Your task to perform on an android device: Open the web browser Image 0: 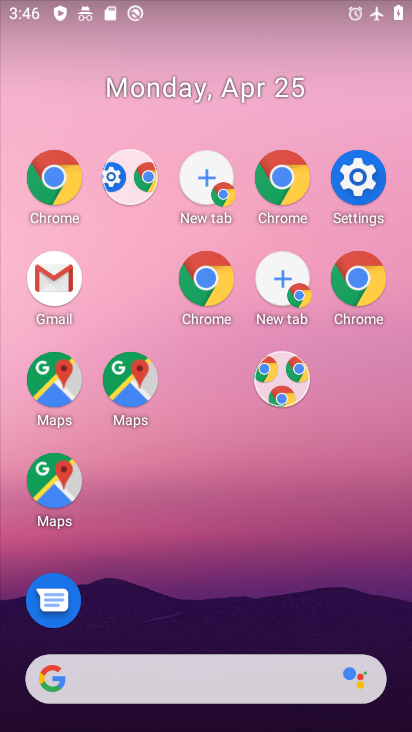
Step 0: drag from (291, 455) to (203, 56)
Your task to perform on an android device: Open the web browser Image 1: 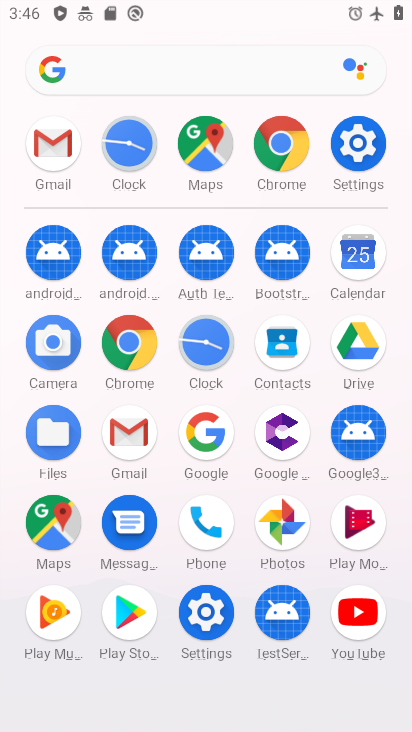
Step 1: click (360, 151)
Your task to perform on an android device: Open the web browser Image 2: 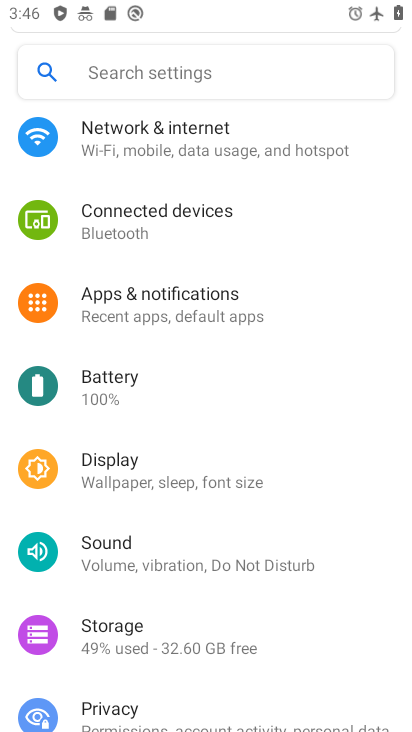
Step 2: drag from (158, 283) to (196, 621)
Your task to perform on an android device: Open the web browser Image 3: 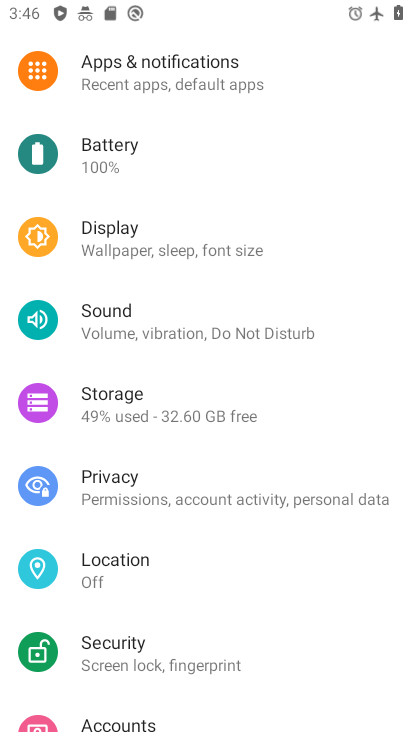
Step 3: drag from (91, 136) to (181, 635)
Your task to perform on an android device: Open the web browser Image 4: 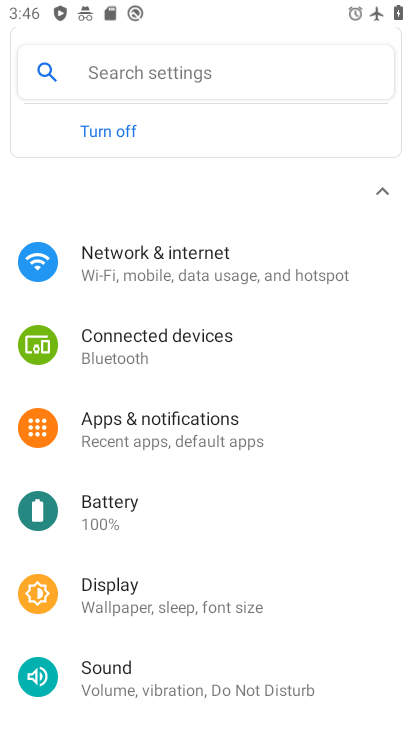
Step 4: drag from (118, 120) to (195, 608)
Your task to perform on an android device: Open the web browser Image 5: 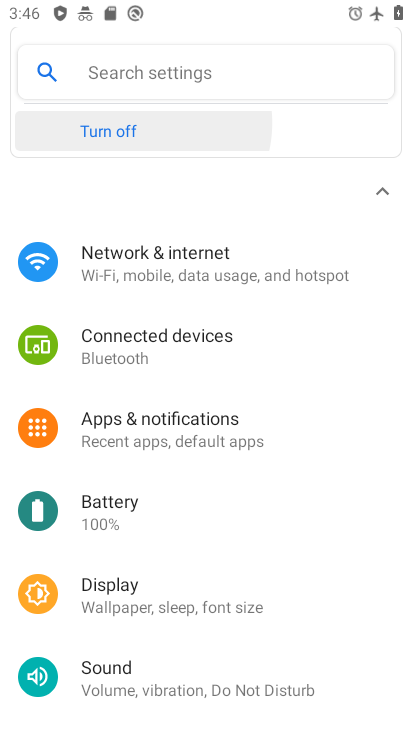
Step 5: drag from (109, 142) to (164, 728)
Your task to perform on an android device: Open the web browser Image 6: 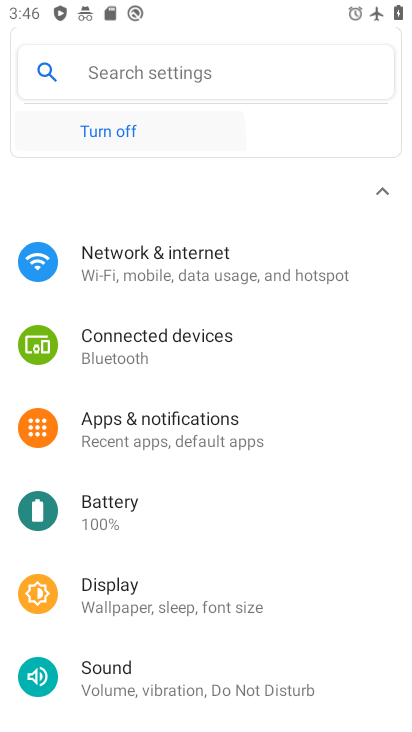
Step 6: drag from (148, 276) to (161, 560)
Your task to perform on an android device: Open the web browser Image 7: 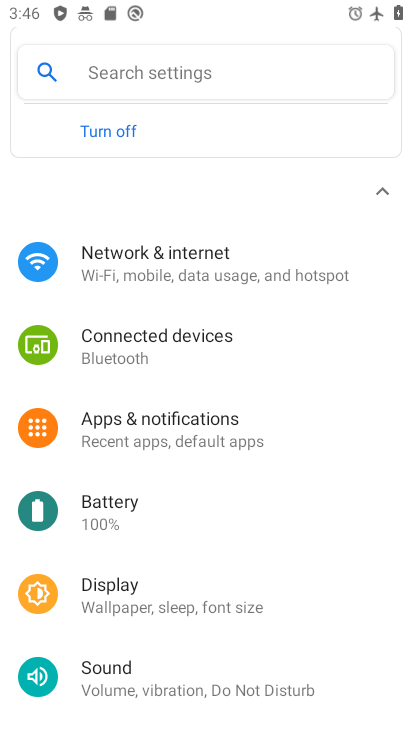
Step 7: drag from (151, 613) to (76, 171)
Your task to perform on an android device: Open the web browser Image 8: 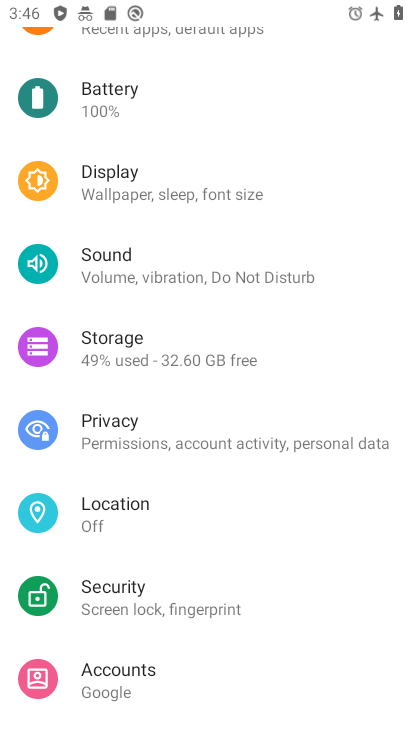
Step 8: drag from (138, 526) to (95, 146)
Your task to perform on an android device: Open the web browser Image 9: 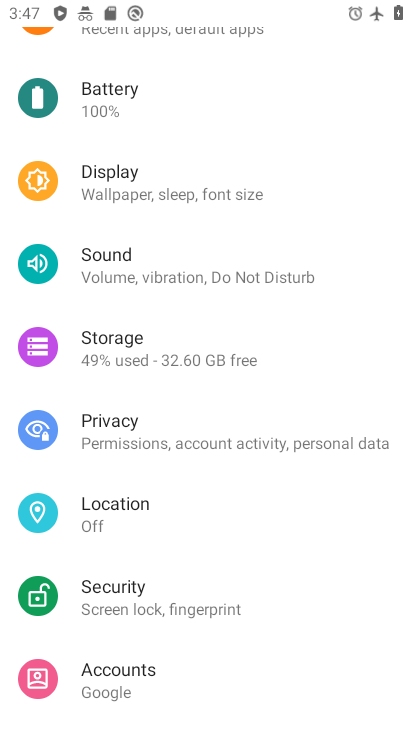
Step 9: drag from (154, 611) to (84, 81)
Your task to perform on an android device: Open the web browser Image 10: 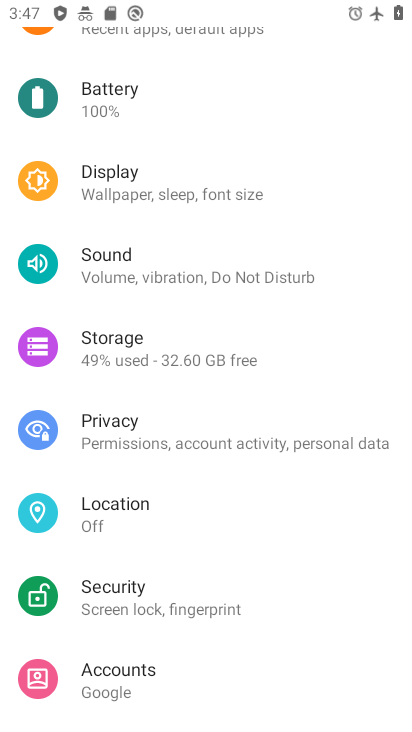
Step 10: drag from (168, 499) to (132, 9)
Your task to perform on an android device: Open the web browser Image 11: 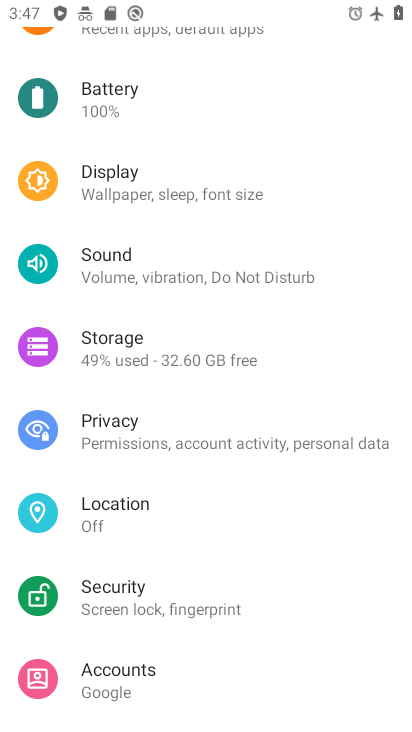
Step 11: drag from (141, 268) to (201, 668)
Your task to perform on an android device: Open the web browser Image 12: 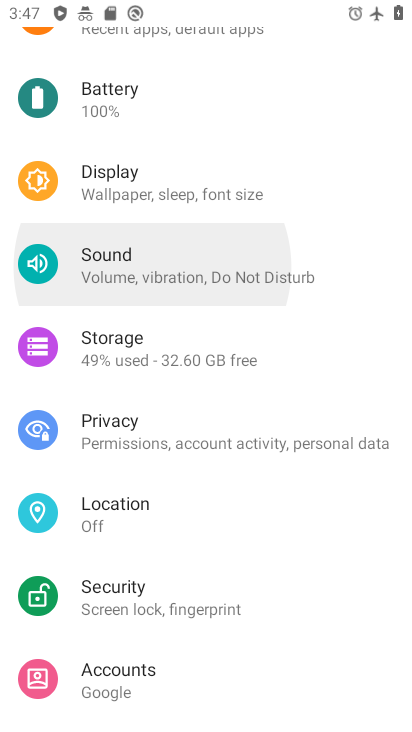
Step 12: drag from (82, 154) to (138, 506)
Your task to perform on an android device: Open the web browser Image 13: 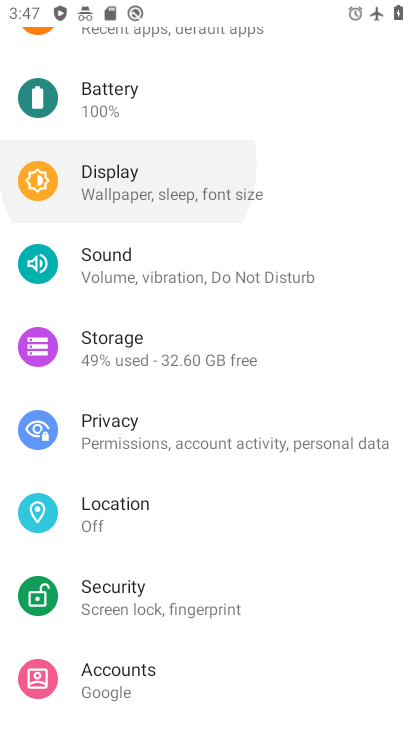
Step 13: drag from (137, 189) to (208, 581)
Your task to perform on an android device: Open the web browser Image 14: 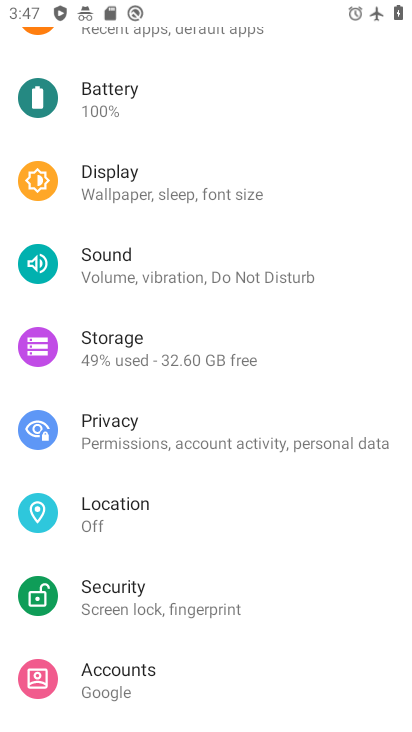
Step 14: drag from (194, 298) to (147, 660)
Your task to perform on an android device: Open the web browser Image 15: 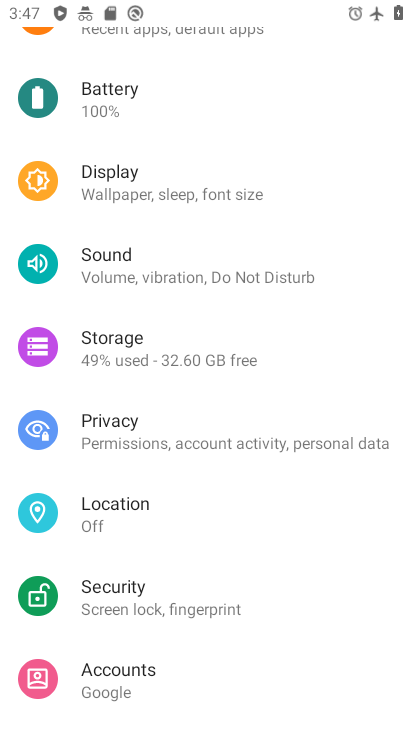
Step 15: drag from (219, 723) to (113, 427)
Your task to perform on an android device: Open the web browser Image 16: 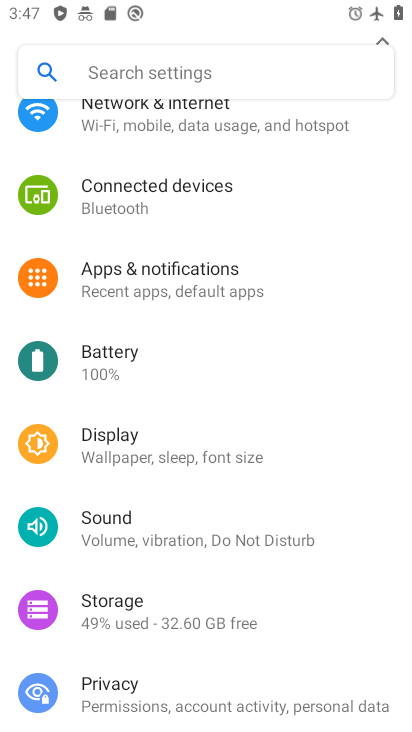
Step 16: drag from (109, 396) to (237, 564)
Your task to perform on an android device: Open the web browser Image 17: 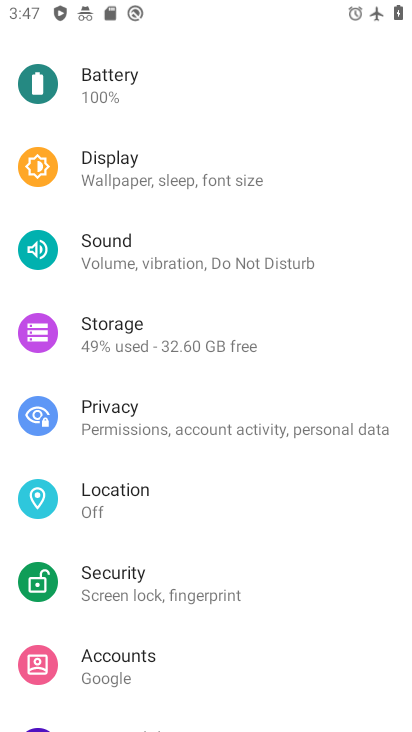
Step 17: drag from (219, 384) to (171, 459)
Your task to perform on an android device: Open the web browser Image 18: 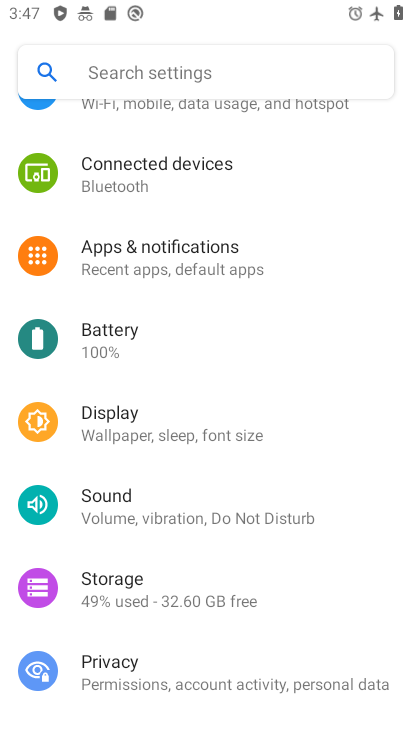
Step 18: drag from (89, 287) to (146, 504)
Your task to perform on an android device: Open the web browser Image 19: 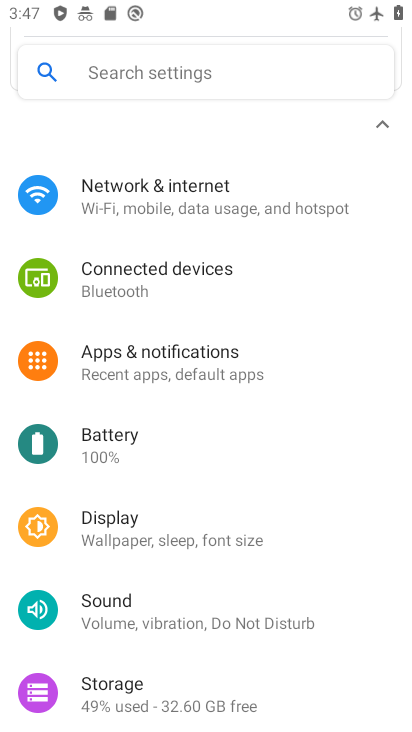
Step 19: press home button
Your task to perform on an android device: Open the web browser Image 20: 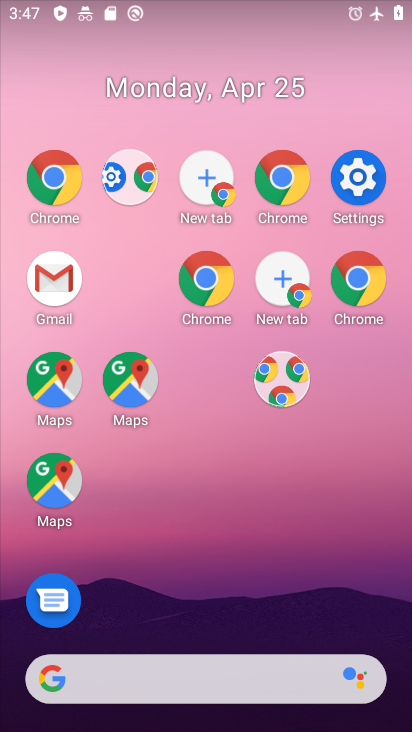
Step 20: drag from (214, 628) to (167, 39)
Your task to perform on an android device: Open the web browser Image 21: 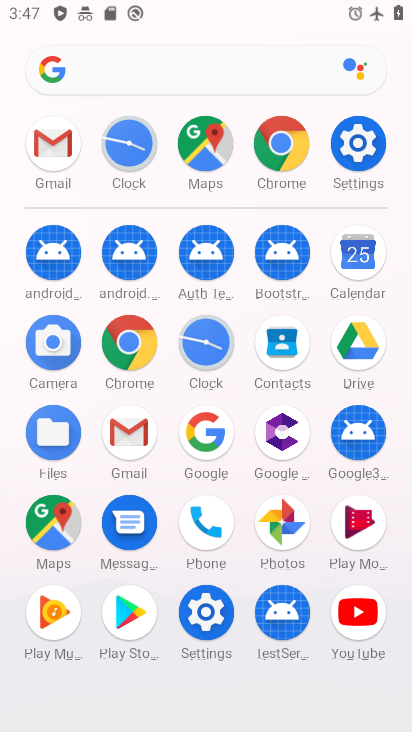
Step 21: click (279, 143)
Your task to perform on an android device: Open the web browser Image 22: 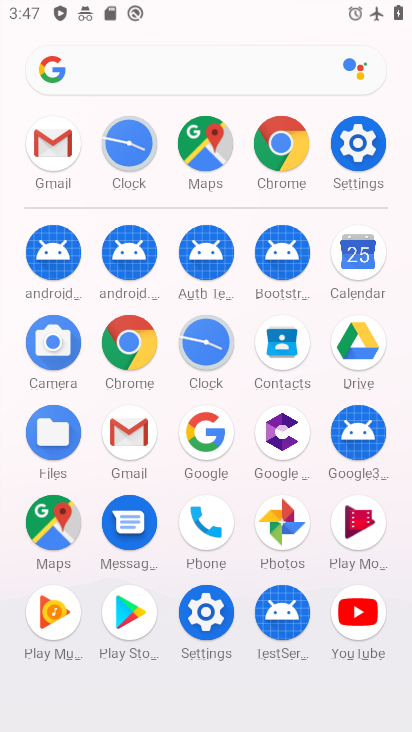
Step 22: click (282, 131)
Your task to perform on an android device: Open the web browser Image 23: 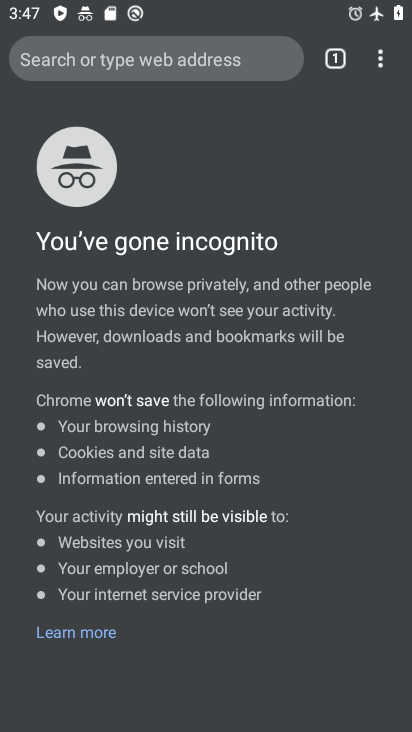
Step 23: click (284, 149)
Your task to perform on an android device: Open the web browser Image 24: 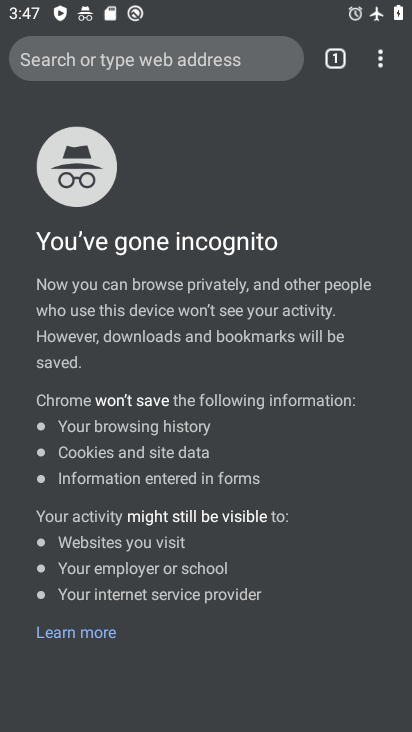
Step 24: drag from (377, 63) to (179, 180)
Your task to perform on an android device: Open the web browser Image 25: 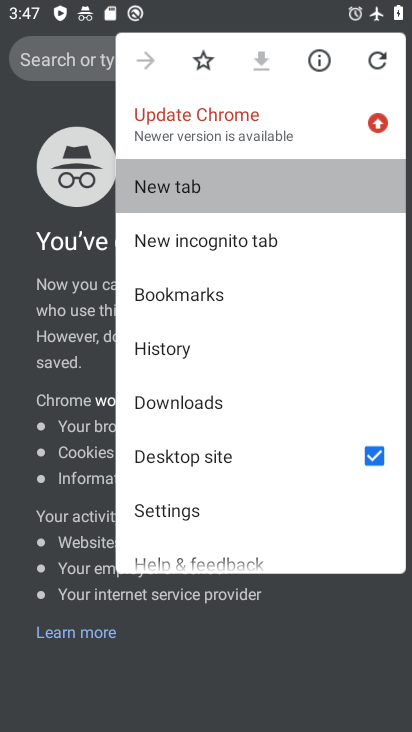
Step 25: click (182, 178)
Your task to perform on an android device: Open the web browser Image 26: 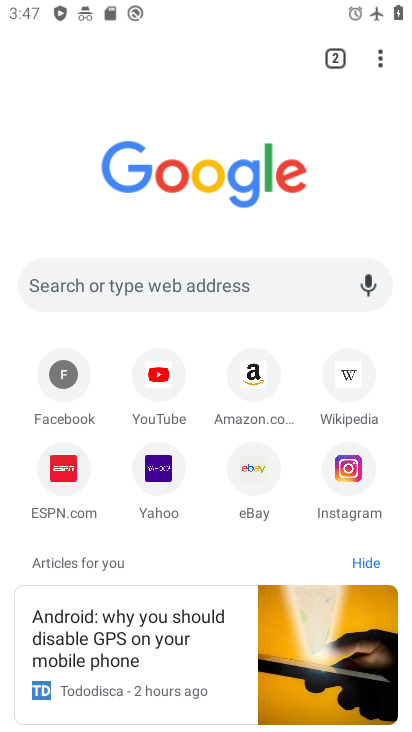
Step 26: click (94, 283)
Your task to perform on an android device: Open the web browser Image 27: 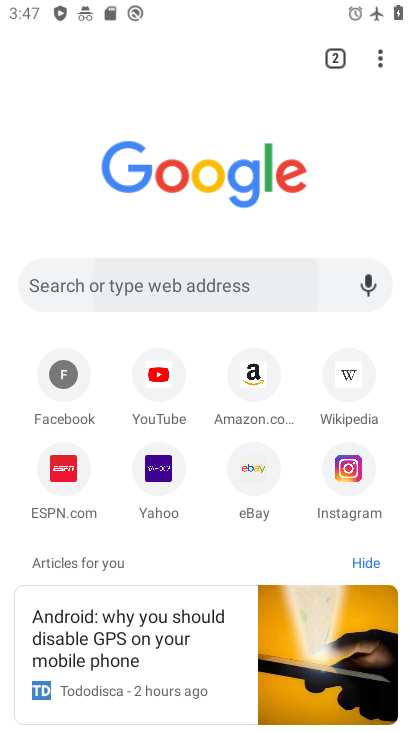
Step 27: click (97, 281)
Your task to perform on an android device: Open the web browser Image 28: 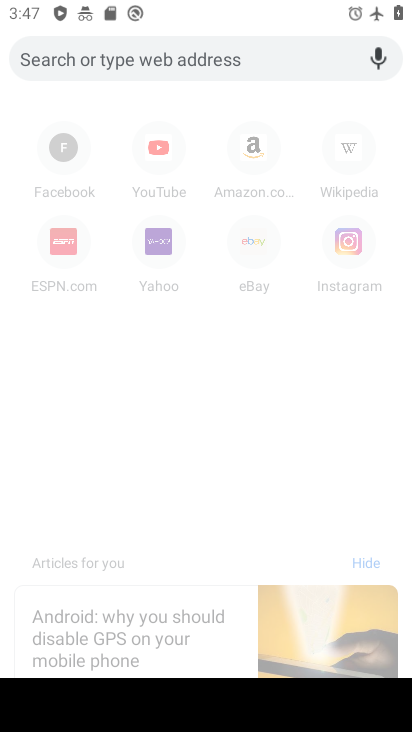
Step 28: task complete